Your task to perform on an android device: What's the weather today? Image 0: 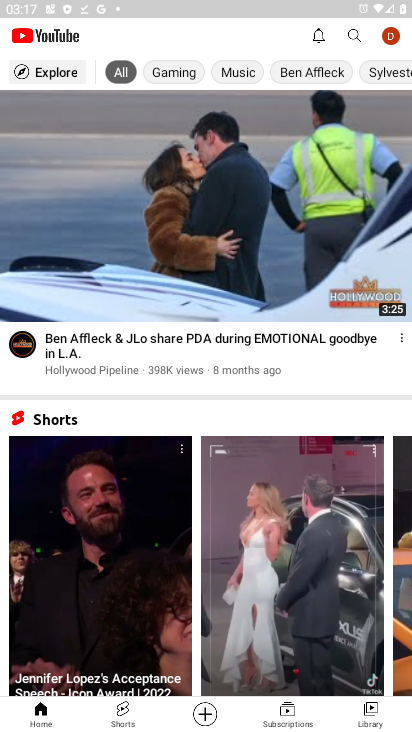
Step 0: press home button
Your task to perform on an android device: What's the weather today? Image 1: 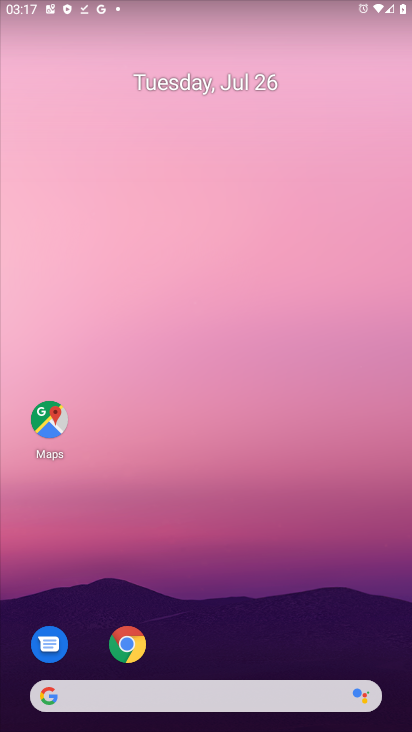
Step 1: click (189, 697)
Your task to perform on an android device: What's the weather today? Image 2: 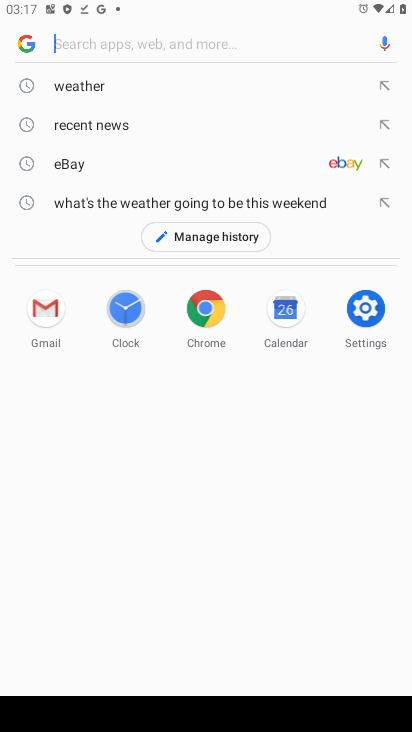
Step 2: click (71, 84)
Your task to perform on an android device: What's the weather today? Image 3: 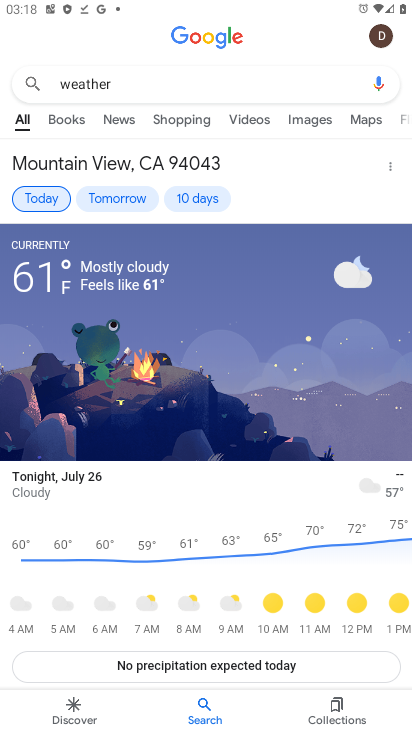
Step 3: click (45, 197)
Your task to perform on an android device: What's the weather today? Image 4: 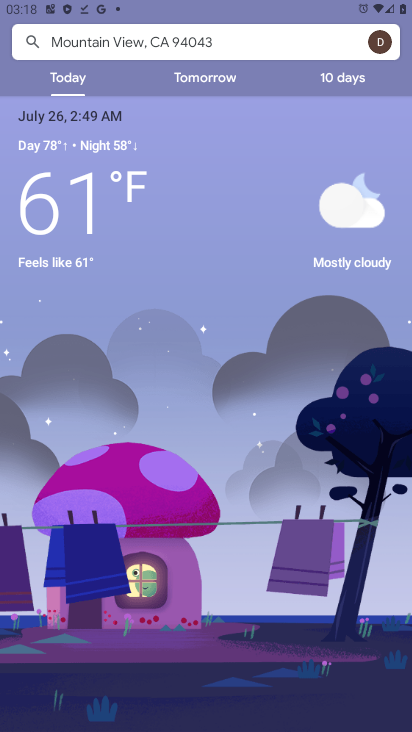
Step 4: task complete